Your task to perform on an android device: Go to sound settings Image 0: 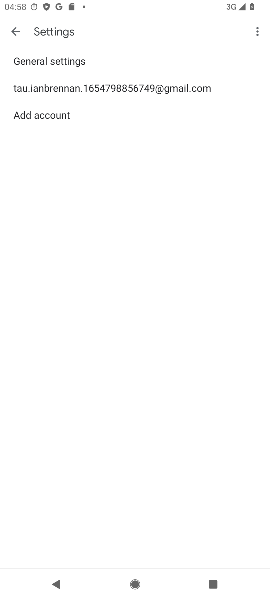
Step 0: press home button
Your task to perform on an android device: Go to sound settings Image 1: 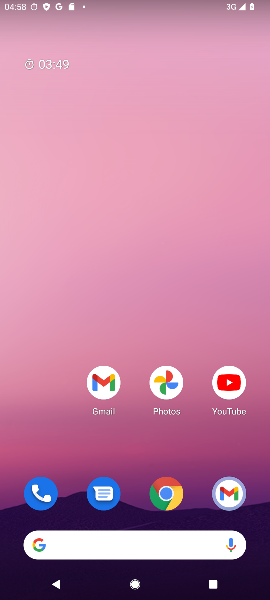
Step 1: drag from (67, 441) to (75, 143)
Your task to perform on an android device: Go to sound settings Image 2: 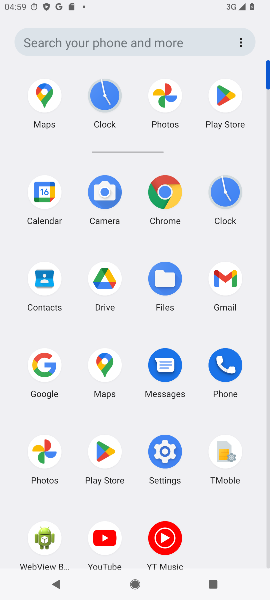
Step 2: click (164, 453)
Your task to perform on an android device: Go to sound settings Image 3: 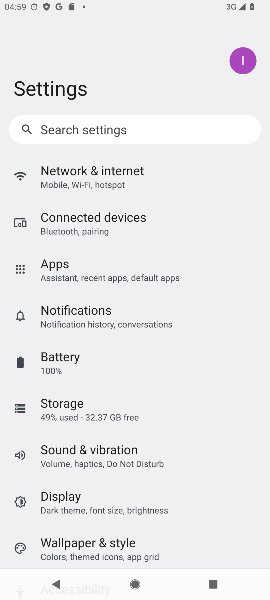
Step 3: drag from (189, 477) to (223, 279)
Your task to perform on an android device: Go to sound settings Image 4: 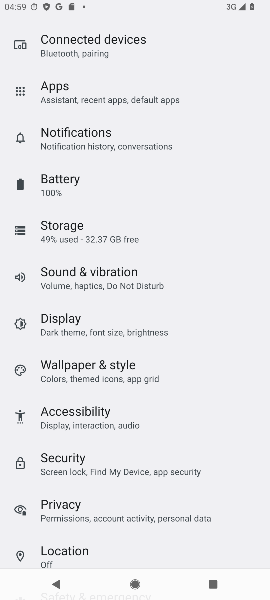
Step 4: drag from (238, 442) to (256, 189)
Your task to perform on an android device: Go to sound settings Image 5: 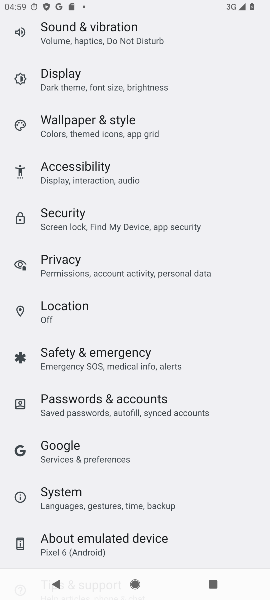
Step 5: drag from (228, 438) to (242, 276)
Your task to perform on an android device: Go to sound settings Image 6: 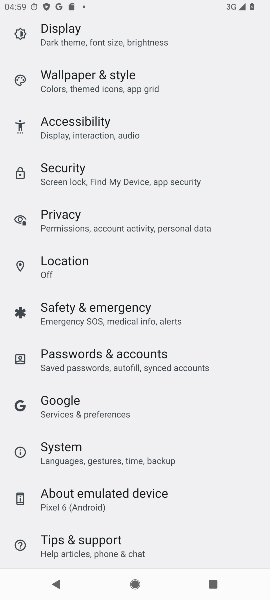
Step 6: drag from (244, 215) to (233, 368)
Your task to perform on an android device: Go to sound settings Image 7: 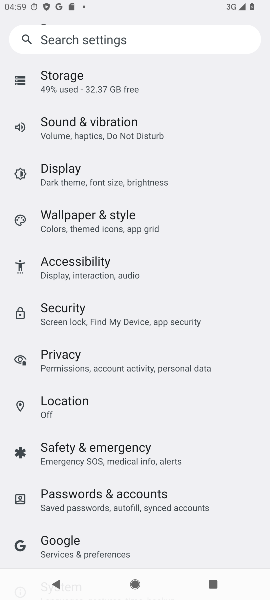
Step 7: drag from (247, 189) to (247, 346)
Your task to perform on an android device: Go to sound settings Image 8: 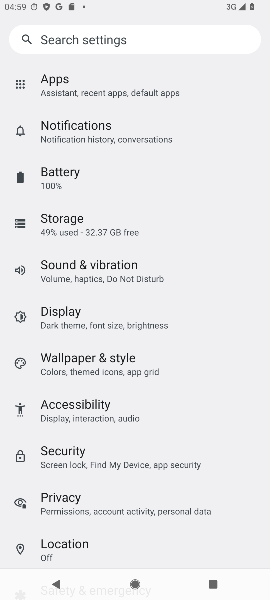
Step 8: drag from (240, 195) to (236, 343)
Your task to perform on an android device: Go to sound settings Image 9: 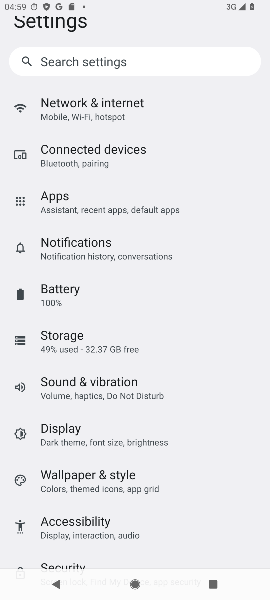
Step 9: drag from (240, 182) to (236, 311)
Your task to perform on an android device: Go to sound settings Image 10: 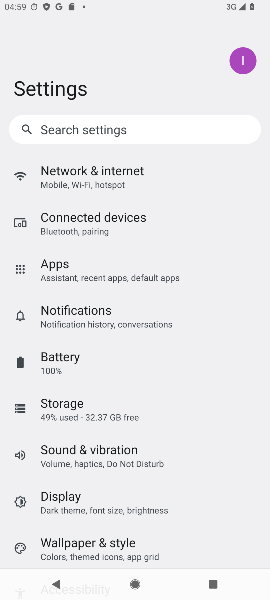
Step 10: drag from (246, 221) to (242, 426)
Your task to perform on an android device: Go to sound settings Image 11: 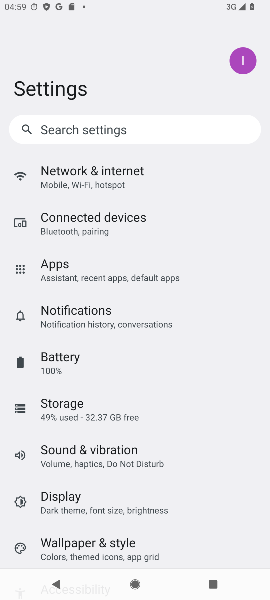
Step 11: click (191, 453)
Your task to perform on an android device: Go to sound settings Image 12: 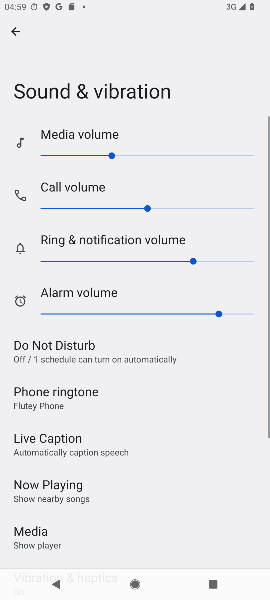
Step 12: task complete